Your task to perform on an android device: Go to settings Image 0: 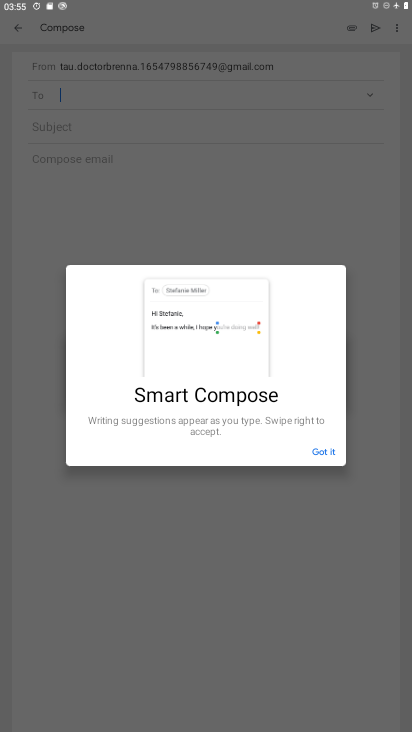
Step 0: press home button
Your task to perform on an android device: Go to settings Image 1: 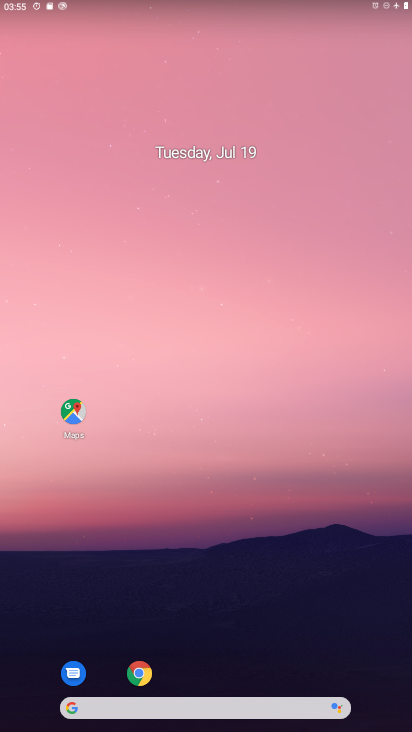
Step 1: drag from (206, 596) to (229, 10)
Your task to perform on an android device: Go to settings Image 2: 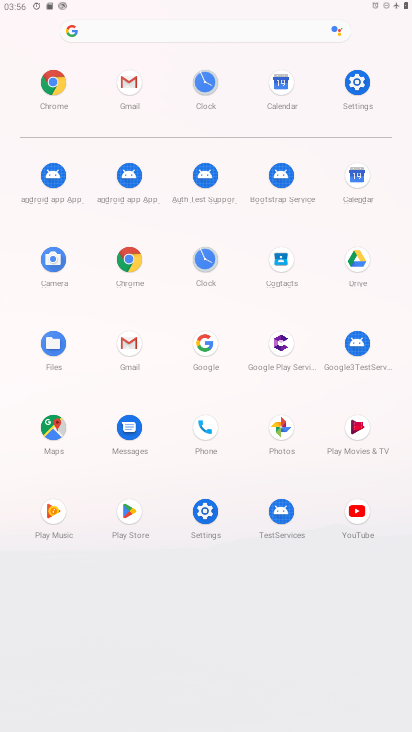
Step 2: click (203, 511)
Your task to perform on an android device: Go to settings Image 3: 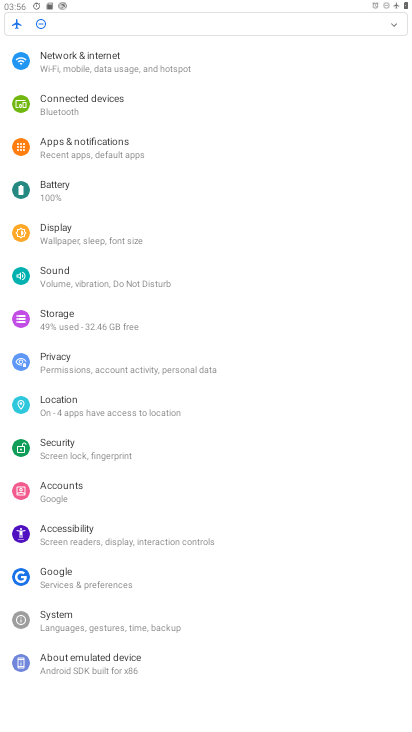
Step 3: task complete